Your task to perform on an android device: open app "TextNow: Call + Text Unlimited" (install if not already installed) and enter user name: "stoke@yahoo.com" and password: "prompted" Image 0: 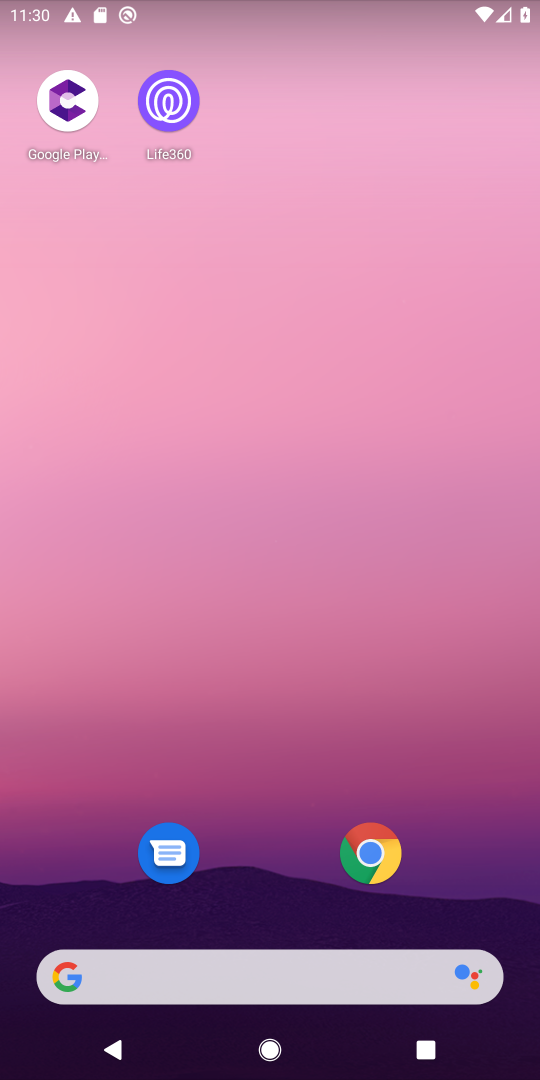
Step 0: drag from (249, 898) to (260, 300)
Your task to perform on an android device: open app "TextNow: Call + Text Unlimited" (install if not already installed) and enter user name: "stoke@yahoo.com" and password: "prompted" Image 1: 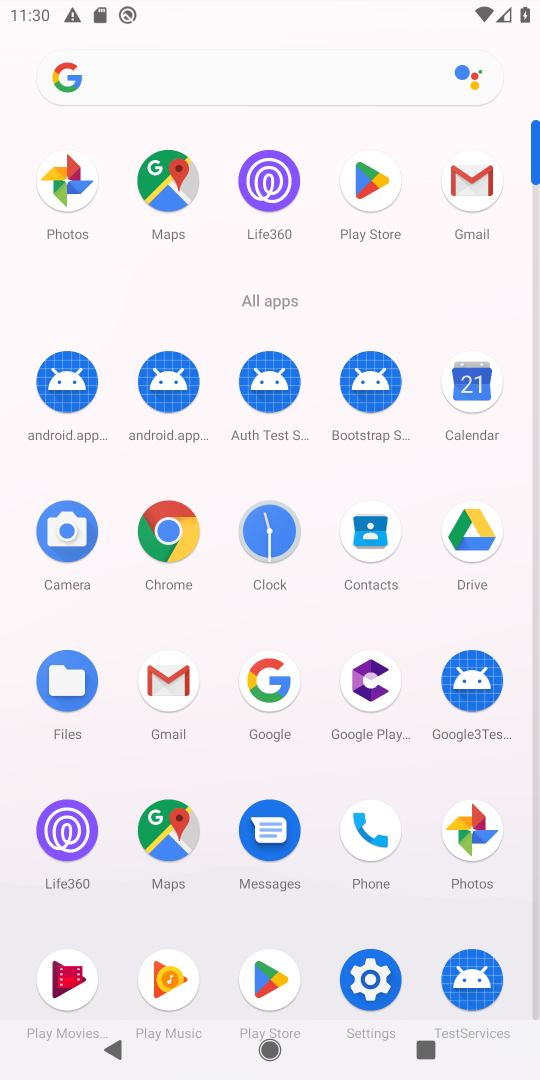
Step 1: click (359, 161)
Your task to perform on an android device: open app "TextNow: Call + Text Unlimited" (install if not already installed) and enter user name: "stoke@yahoo.com" and password: "prompted" Image 2: 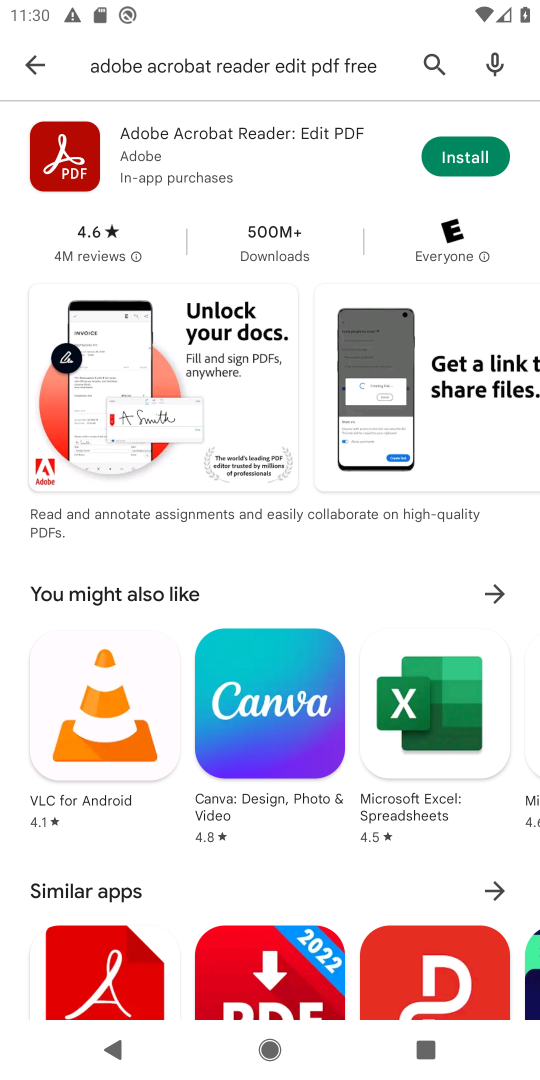
Step 2: click (35, 55)
Your task to perform on an android device: open app "TextNow: Call + Text Unlimited" (install if not already installed) and enter user name: "stoke@yahoo.com" and password: "prompted" Image 3: 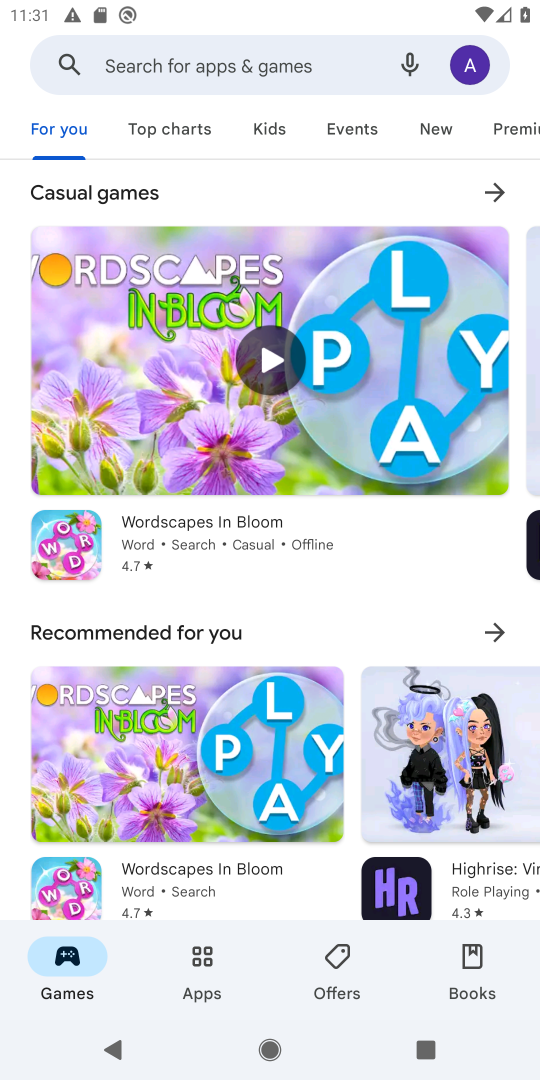
Step 3: click (181, 60)
Your task to perform on an android device: open app "TextNow: Call + Text Unlimited" (install if not already installed) and enter user name: "stoke@yahoo.com" and password: "prompted" Image 4: 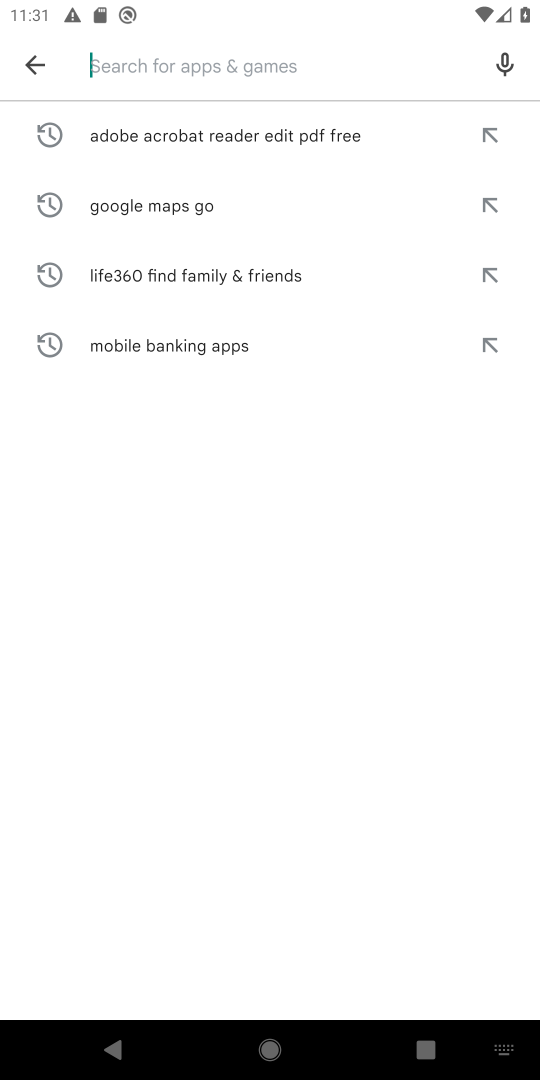
Step 4: type "TextNow: Call + Text Unlimited "
Your task to perform on an android device: open app "TextNow: Call + Text Unlimited" (install if not already installed) and enter user name: "stoke@yahoo.com" and password: "prompted" Image 5: 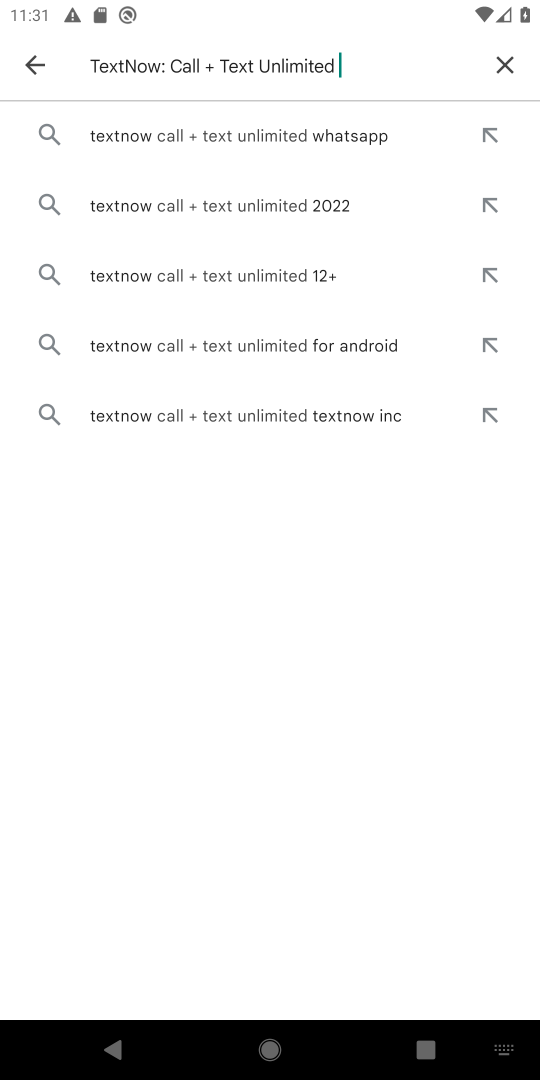
Step 5: click (177, 275)
Your task to perform on an android device: open app "TextNow: Call + Text Unlimited" (install if not already installed) and enter user name: "stoke@yahoo.com" and password: "prompted" Image 6: 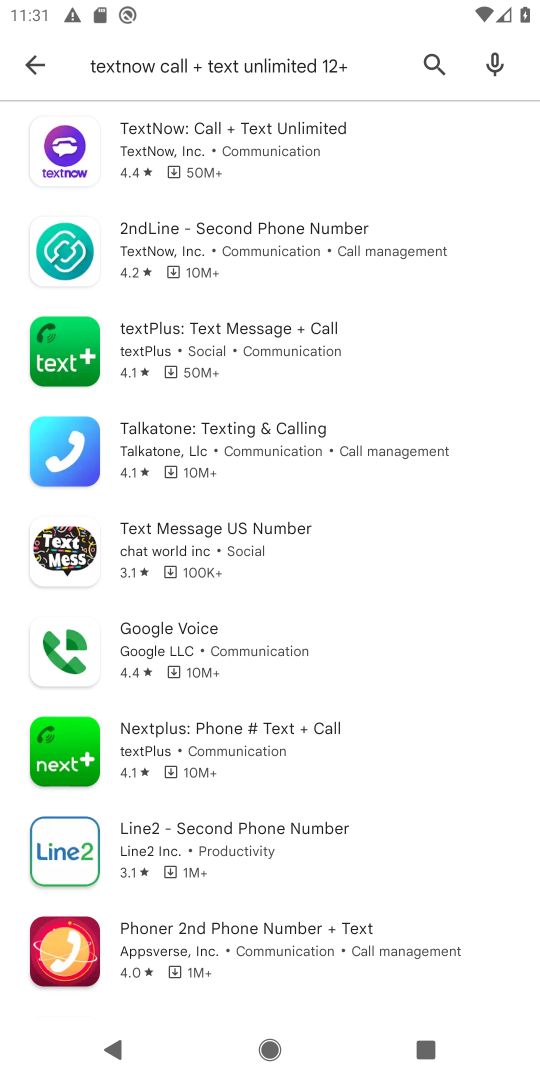
Step 6: click (200, 136)
Your task to perform on an android device: open app "TextNow: Call + Text Unlimited" (install if not already installed) and enter user name: "stoke@yahoo.com" and password: "prompted" Image 7: 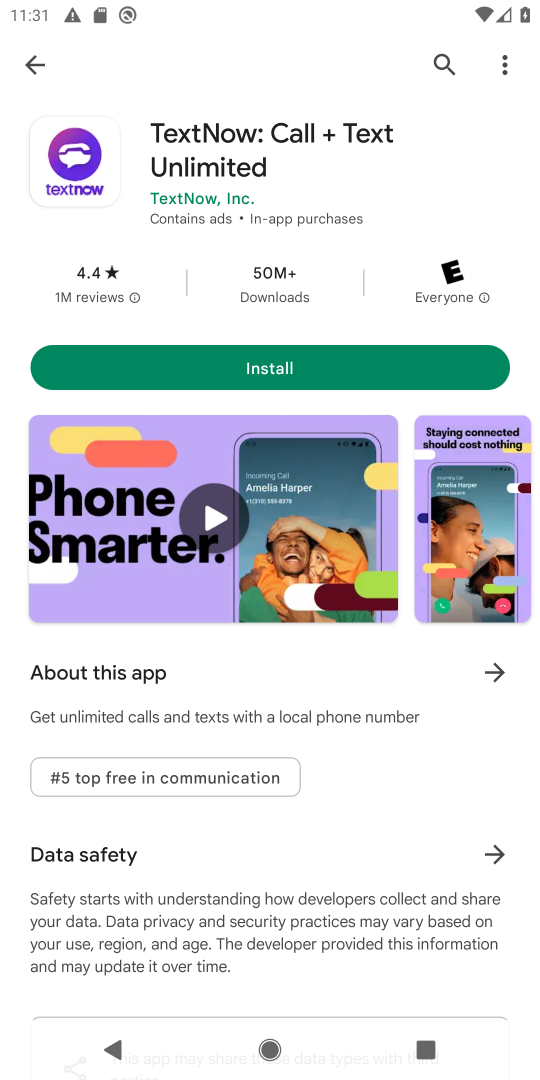
Step 7: click (289, 362)
Your task to perform on an android device: open app "TextNow: Call + Text Unlimited" (install if not already installed) and enter user name: "stoke@yahoo.com" and password: "prompted" Image 8: 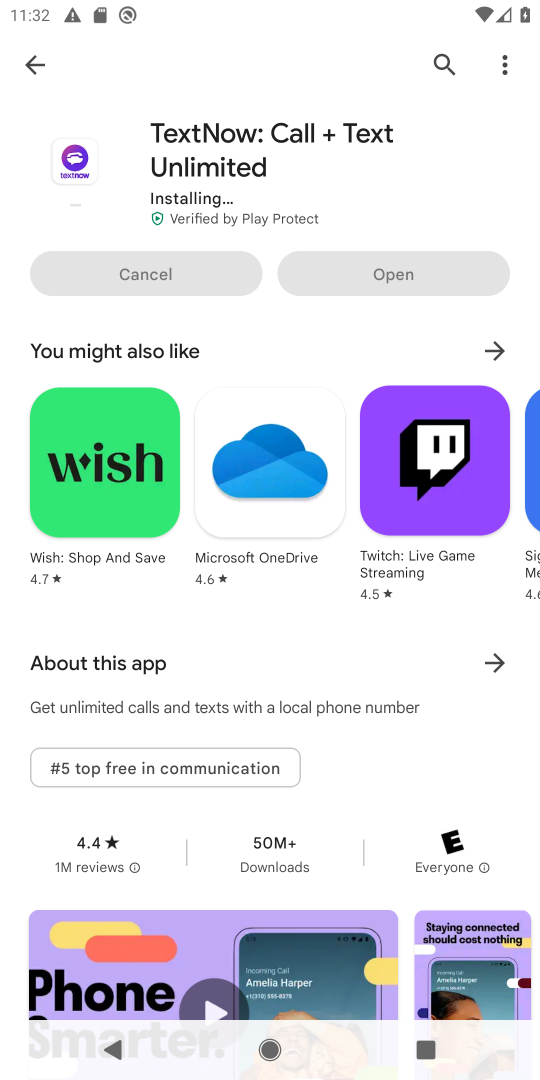
Step 8: task complete